Your task to perform on an android device: Go to wifi settings Image 0: 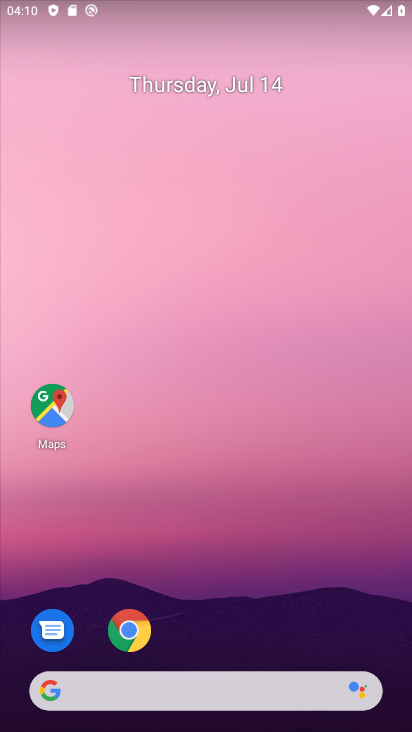
Step 0: drag from (223, 653) to (200, 14)
Your task to perform on an android device: Go to wifi settings Image 1: 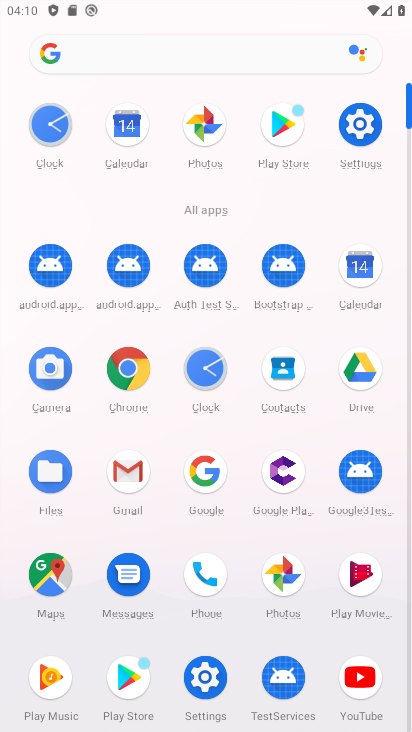
Step 1: click (355, 118)
Your task to perform on an android device: Go to wifi settings Image 2: 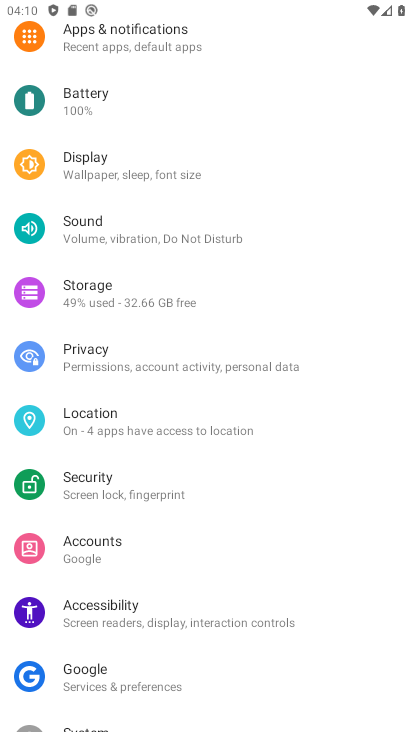
Step 2: drag from (160, 73) to (148, 633)
Your task to perform on an android device: Go to wifi settings Image 3: 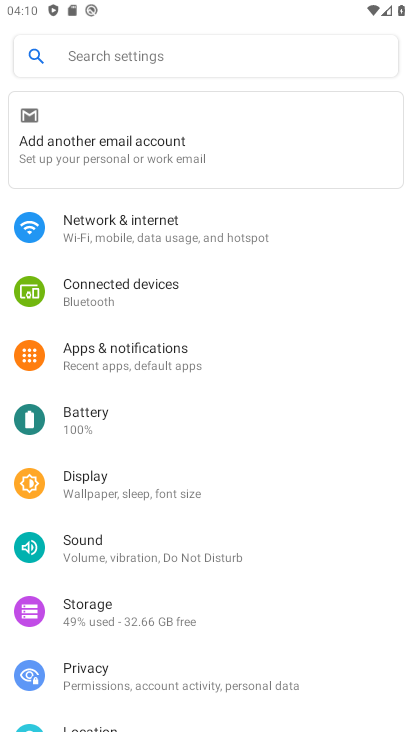
Step 3: click (170, 225)
Your task to perform on an android device: Go to wifi settings Image 4: 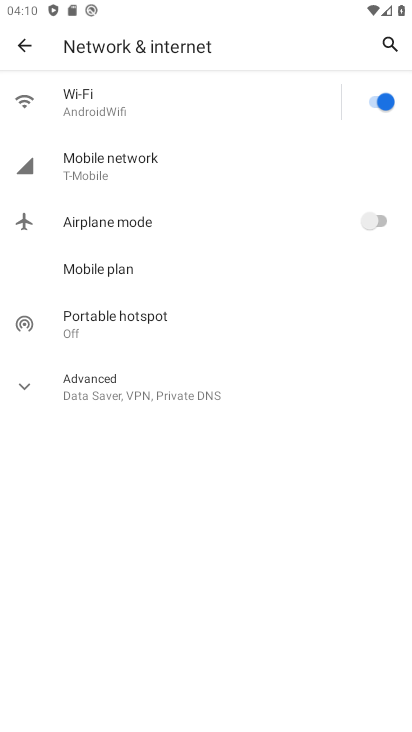
Step 4: click (181, 90)
Your task to perform on an android device: Go to wifi settings Image 5: 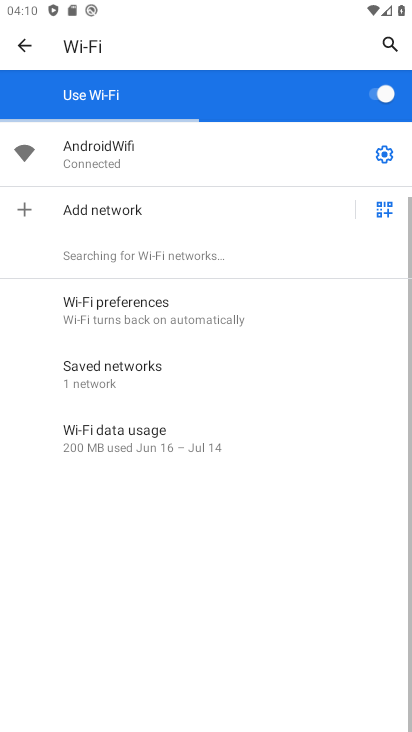
Step 5: task complete